Your task to perform on an android device: Go to notification settings Image 0: 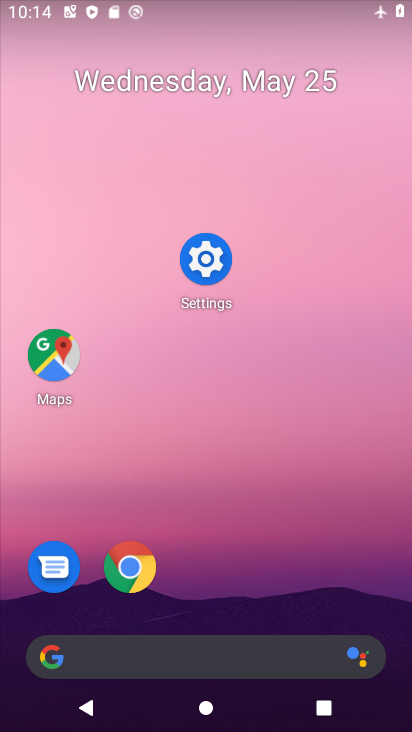
Step 0: drag from (277, 564) to (328, 61)
Your task to perform on an android device: Go to notification settings Image 1: 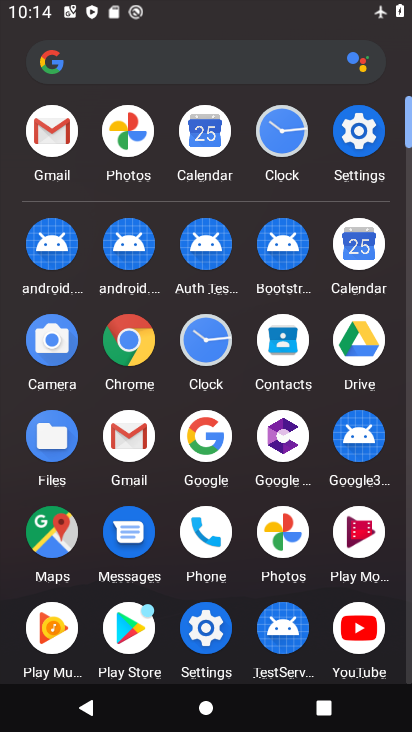
Step 1: click (365, 148)
Your task to perform on an android device: Go to notification settings Image 2: 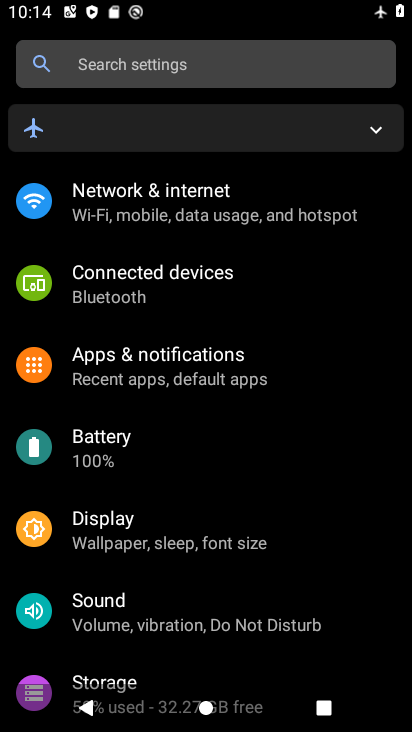
Step 2: click (211, 390)
Your task to perform on an android device: Go to notification settings Image 3: 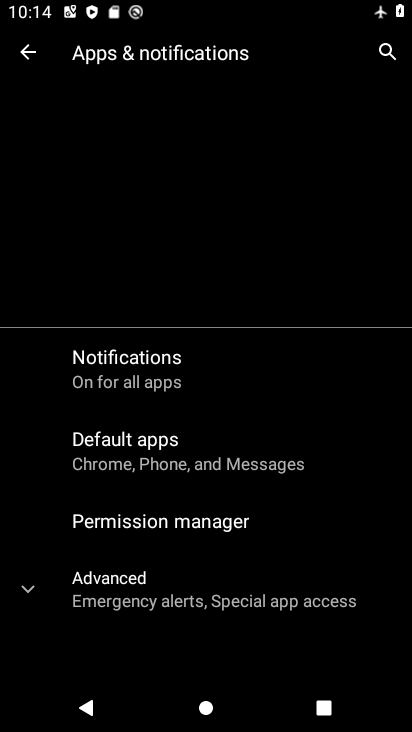
Step 3: task complete